Your task to perform on an android device: toggle show notifications on the lock screen Image 0: 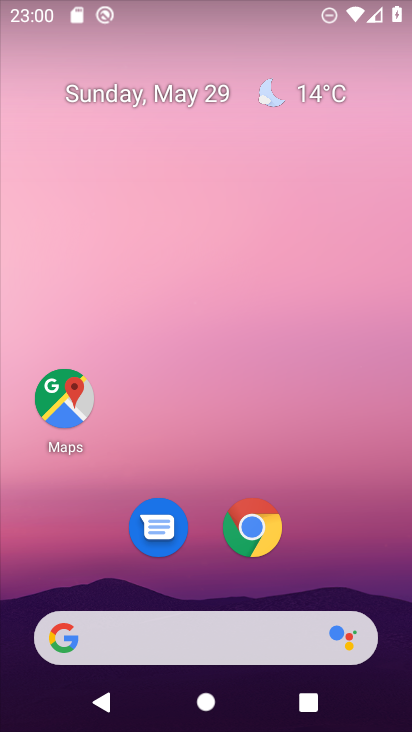
Step 0: press home button
Your task to perform on an android device: toggle show notifications on the lock screen Image 1: 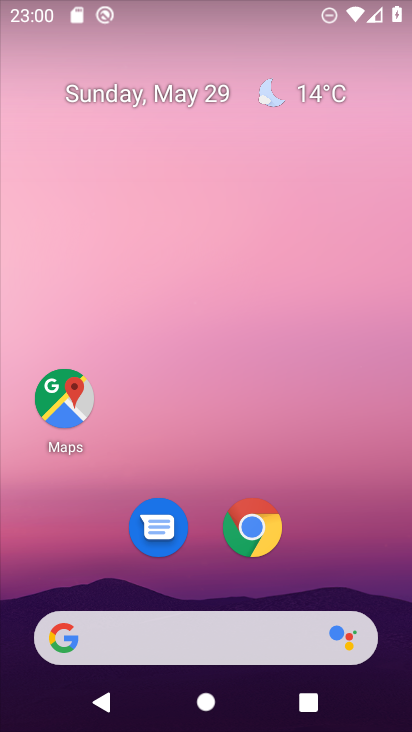
Step 1: drag from (181, 644) to (224, 137)
Your task to perform on an android device: toggle show notifications on the lock screen Image 2: 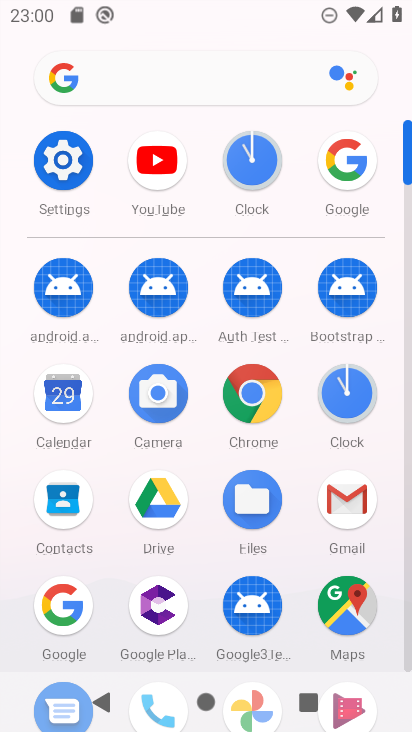
Step 2: click (70, 162)
Your task to perform on an android device: toggle show notifications on the lock screen Image 3: 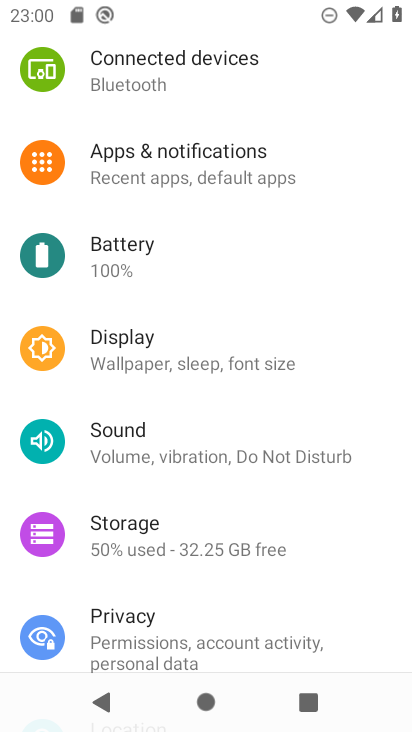
Step 3: click (236, 171)
Your task to perform on an android device: toggle show notifications on the lock screen Image 4: 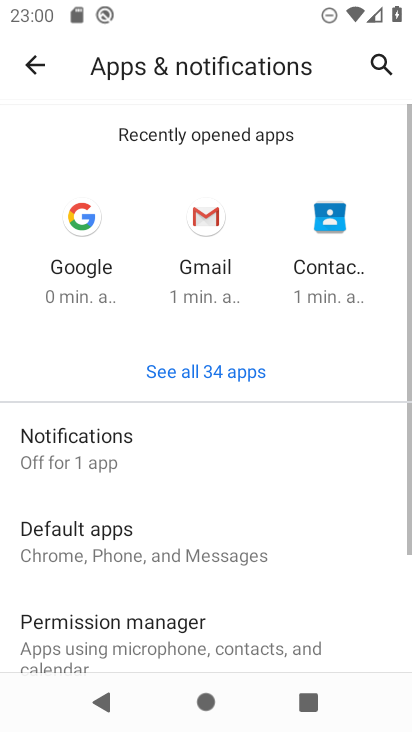
Step 4: click (102, 447)
Your task to perform on an android device: toggle show notifications on the lock screen Image 5: 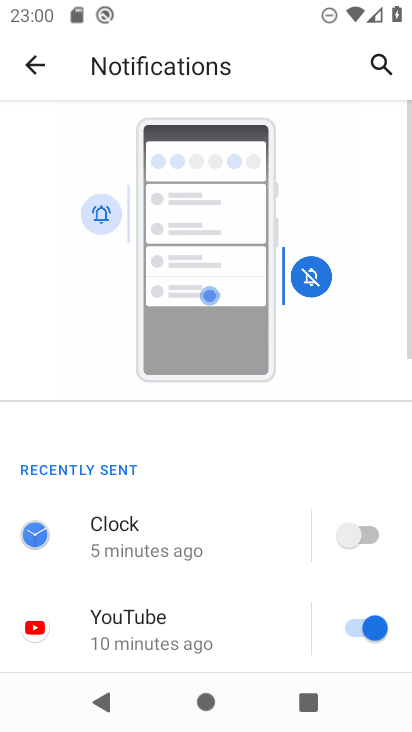
Step 5: drag from (228, 642) to (210, 64)
Your task to perform on an android device: toggle show notifications on the lock screen Image 6: 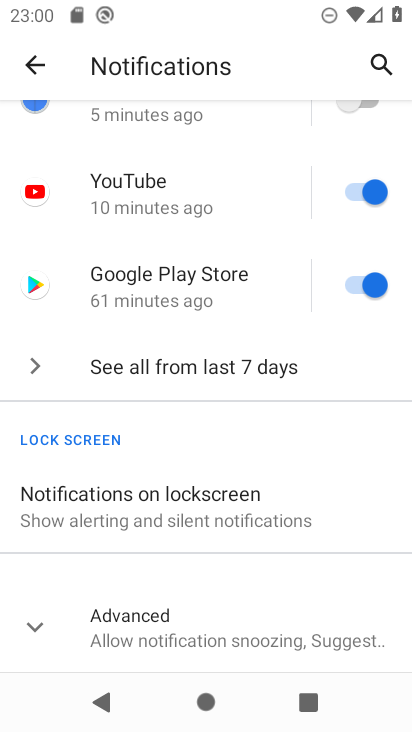
Step 6: click (190, 505)
Your task to perform on an android device: toggle show notifications on the lock screen Image 7: 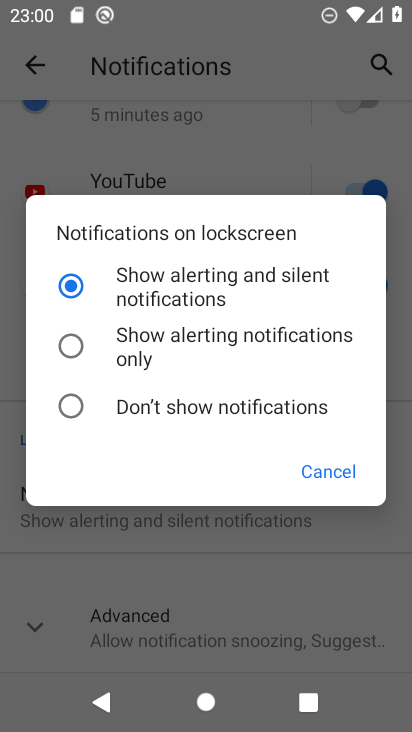
Step 7: click (65, 405)
Your task to perform on an android device: toggle show notifications on the lock screen Image 8: 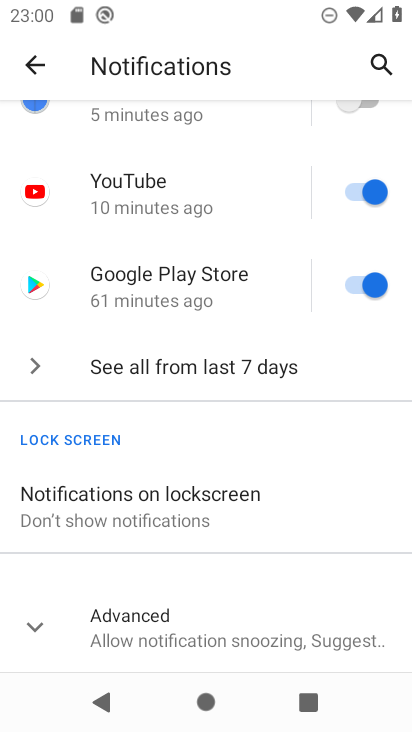
Step 8: task complete